Your task to perform on an android device: turn smart compose on in the gmail app Image 0: 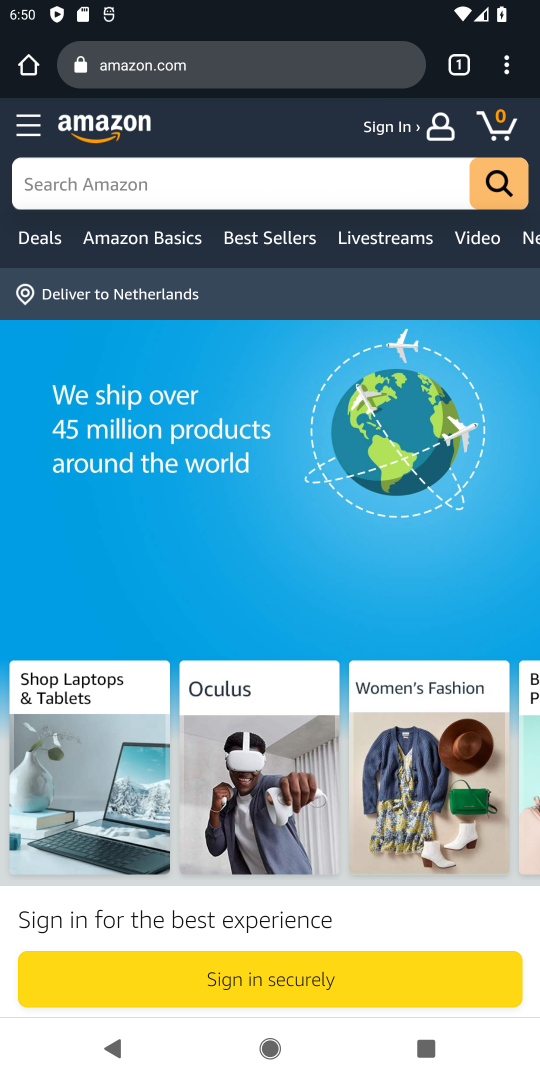
Step 0: press home button
Your task to perform on an android device: turn smart compose on in the gmail app Image 1: 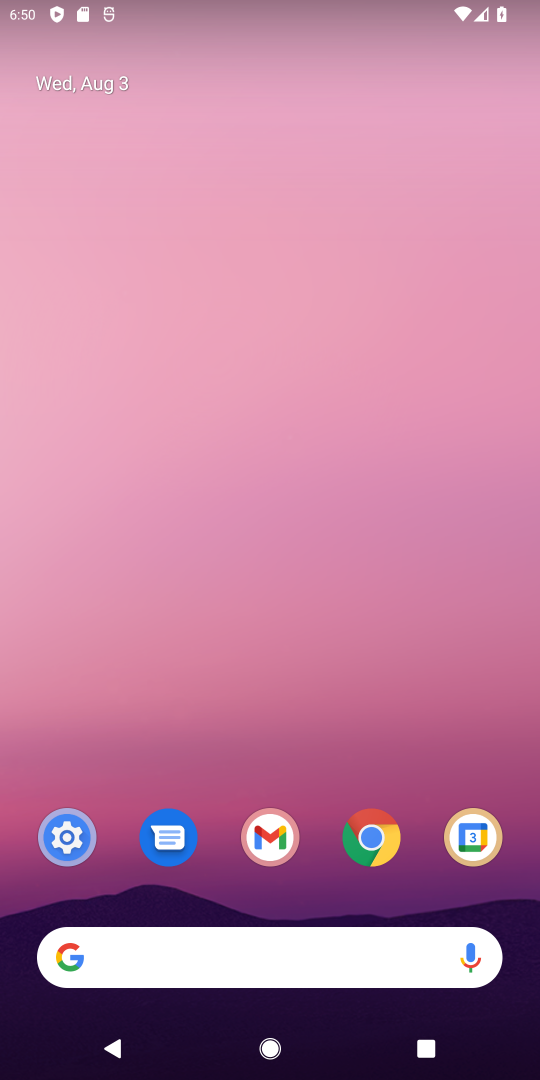
Step 1: drag from (343, 756) to (344, 64)
Your task to perform on an android device: turn smart compose on in the gmail app Image 2: 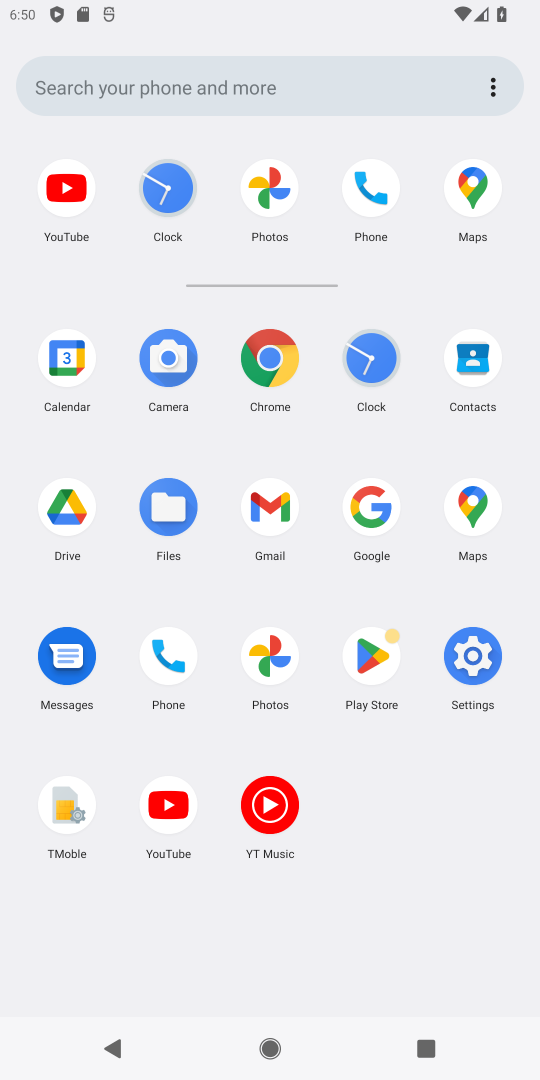
Step 2: click (284, 502)
Your task to perform on an android device: turn smart compose on in the gmail app Image 3: 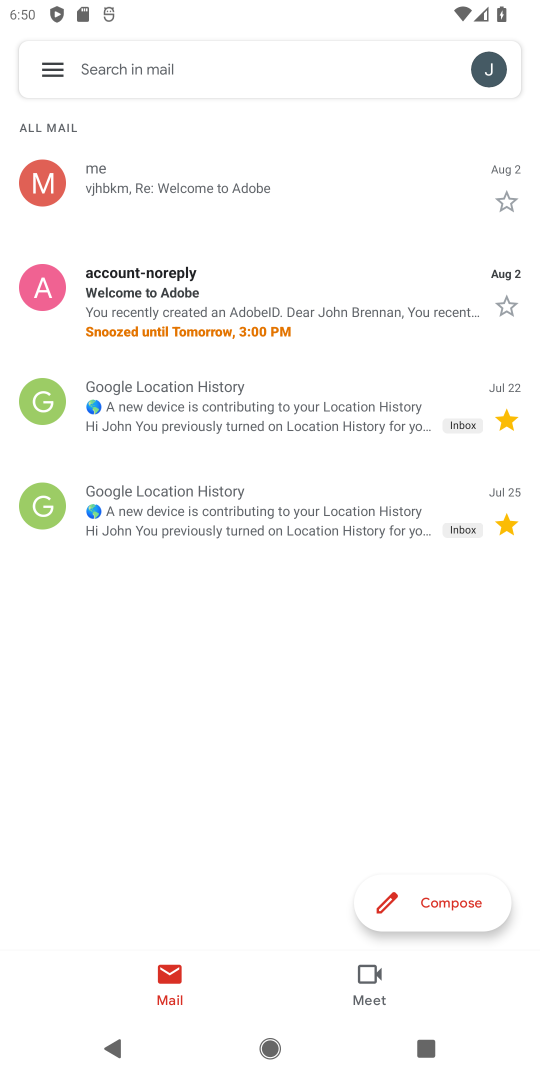
Step 3: click (60, 65)
Your task to perform on an android device: turn smart compose on in the gmail app Image 4: 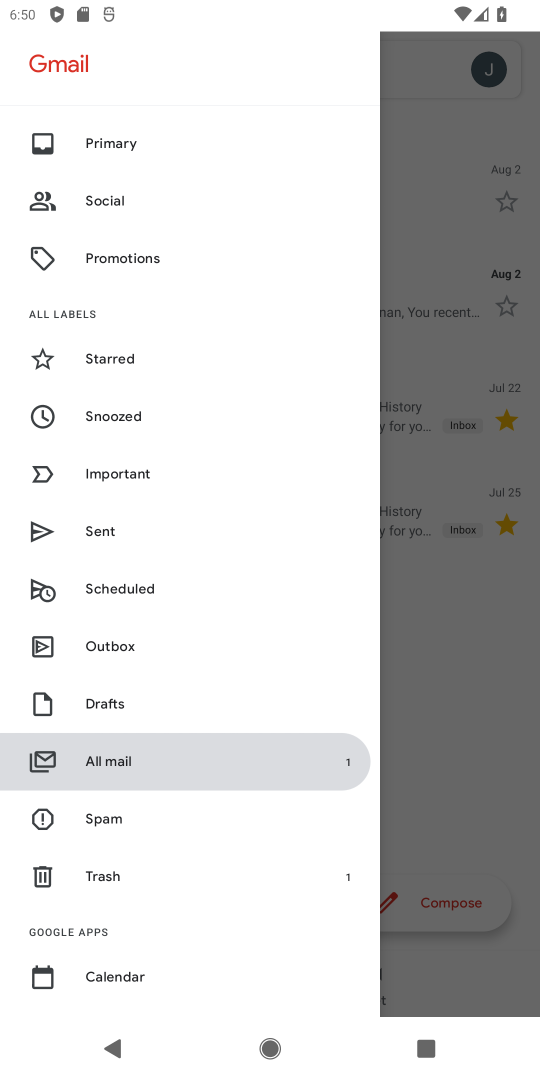
Step 4: drag from (133, 938) to (201, 499)
Your task to perform on an android device: turn smart compose on in the gmail app Image 5: 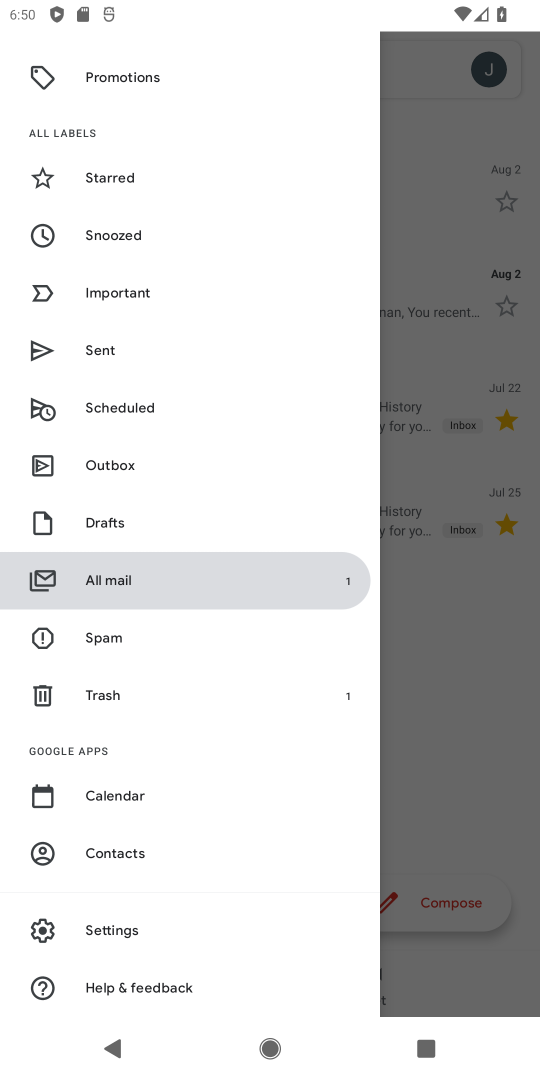
Step 5: click (140, 915)
Your task to perform on an android device: turn smart compose on in the gmail app Image 6: 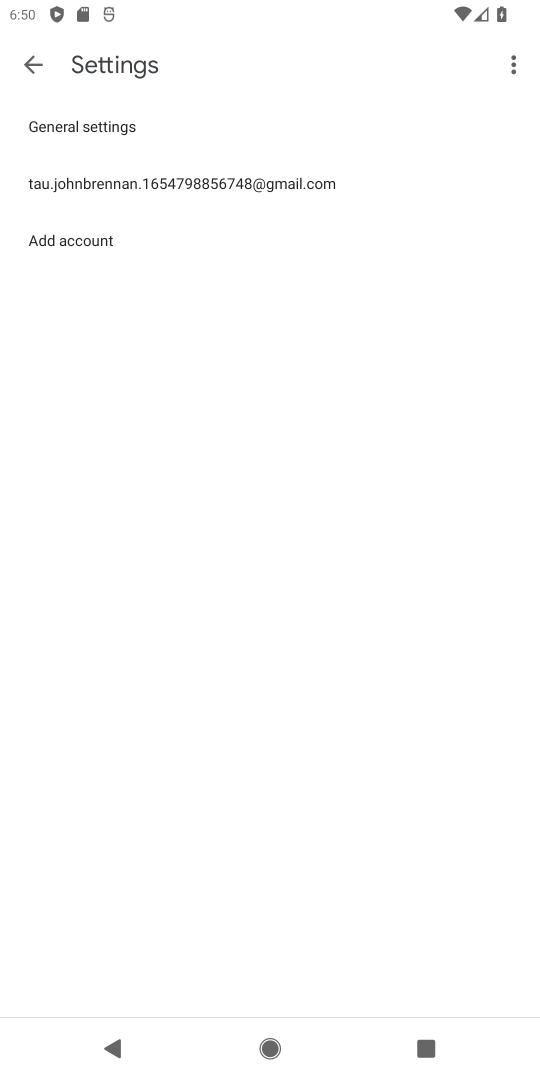
Step 6: click (121, 176)
Your task to perform on an android device: turn smart compose on in the gmail app Image 7: 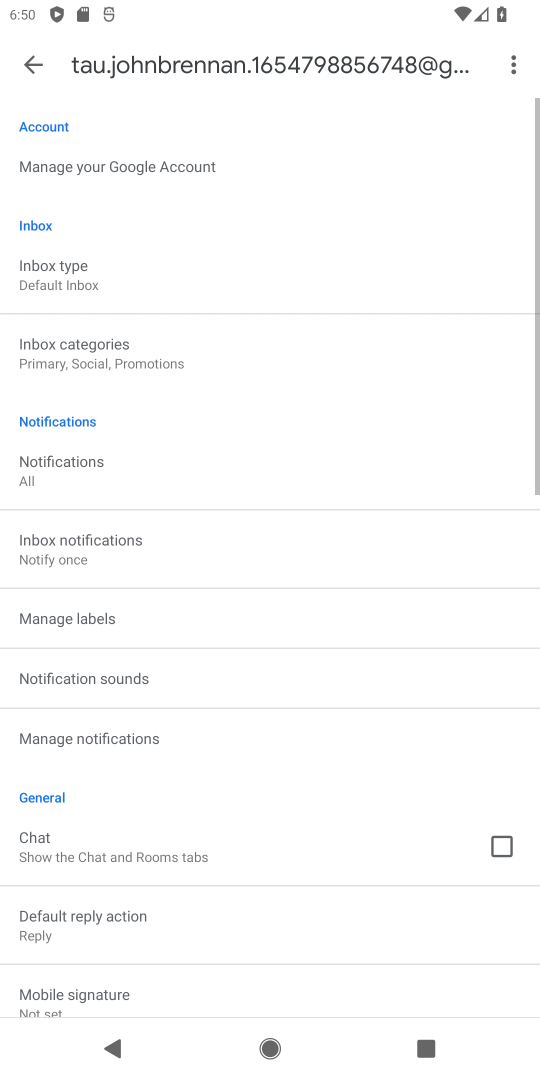
Step 7: task complete